Your task to perform on an android device: turn on data saver in the chrome app Image 0: 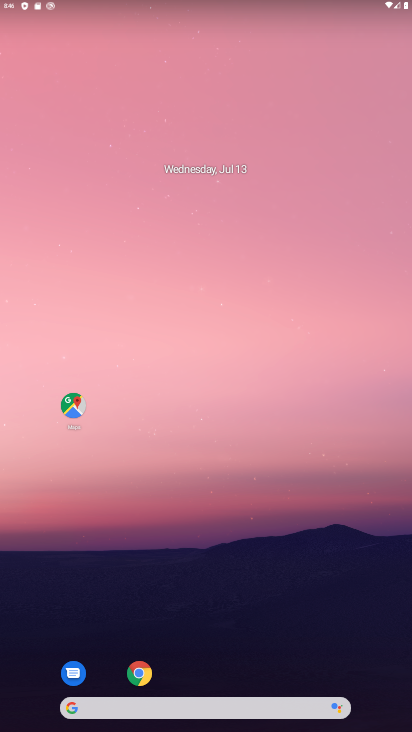
Step 0: drag from (188, 677) to (192, 333)
Your task to perform on an android device: turn on data saver in the chrome app Image 1: 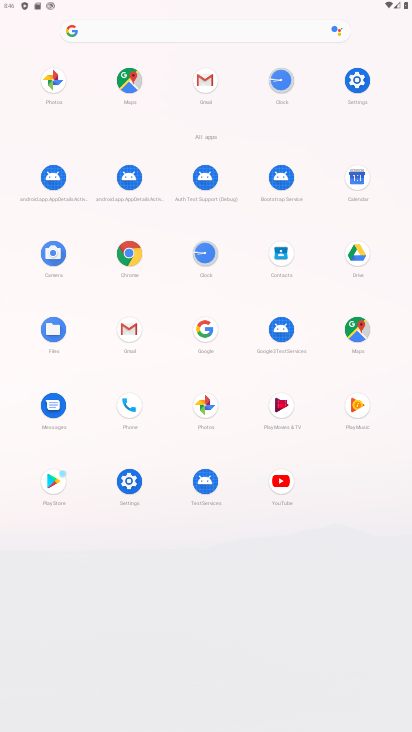
Step 1: click (125, 255)
Your task to perform on an android device: turn on data saver in the chrome app Image 2: 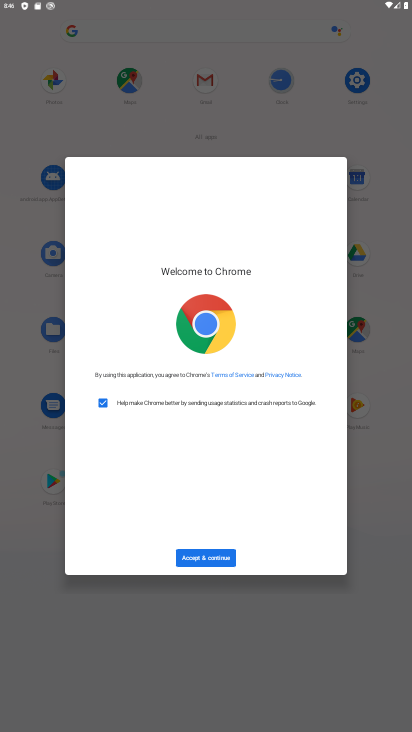
Step 2: click (221, 554)
Your task to perform on an android device: turn on data saver in the chrome app Image 3: 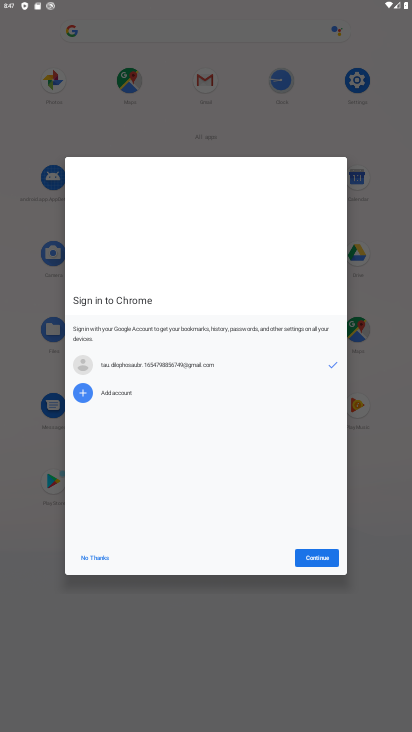
Step 3: click (315, 559)
Your task to perform on an android device: turn on data saver in the chrome app Image 4: 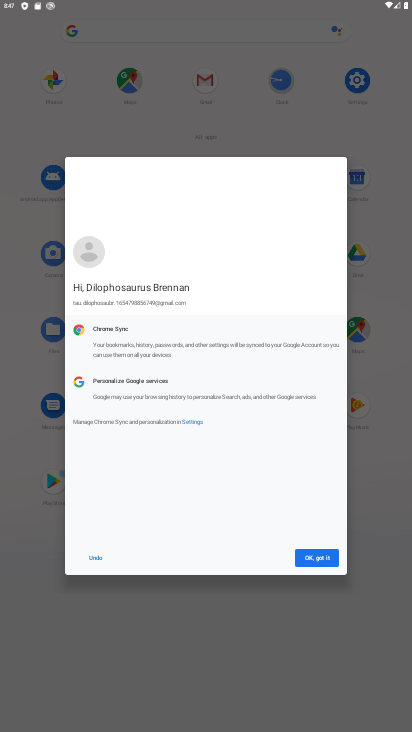
Step 4: click (315, 558)
Your task to perform on an android device: turn on data saver in the chrome app Image 5: 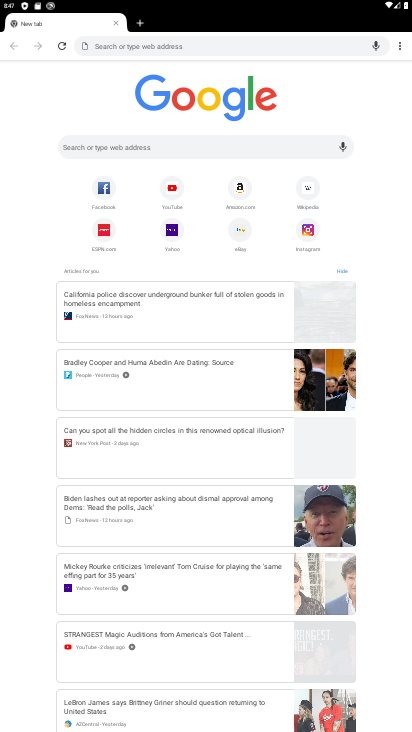
Step 5: click (397, 43)
Your task to perform on an android device: turn on data saver in the chrome app Image 6: 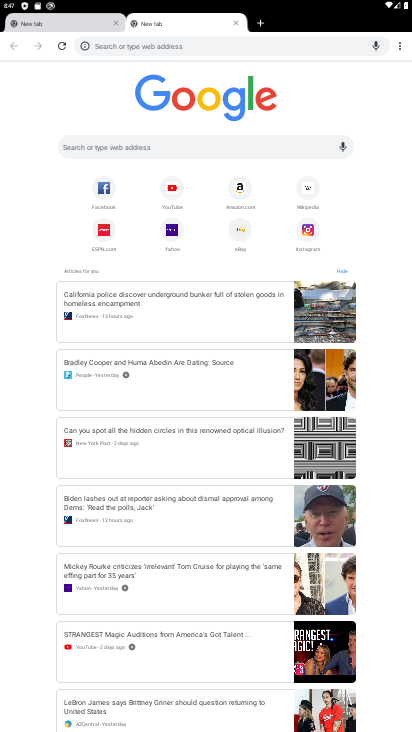
Step 6: click (397, 45)
Your task to perform on an android device: turn on data saver in the chrome app Image 7: 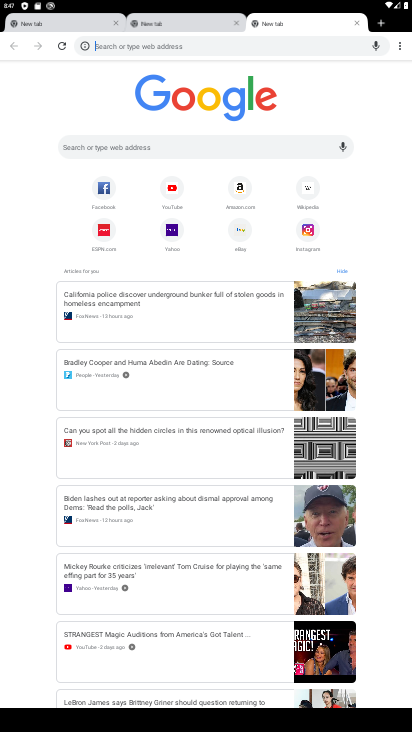
Step 7: click (355, 22)
Your task to perform on an android device: turn on data saver in the chrome app Image 8: 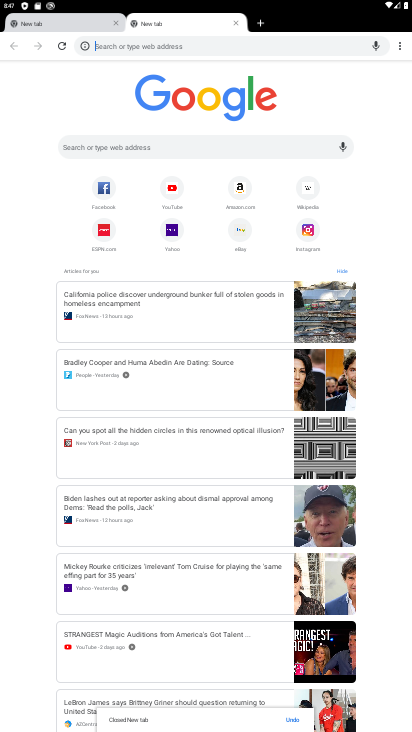
Step 8: click (229, 22)
Your task to perform on an android device: turn on data saver in the chrome app Image 9: 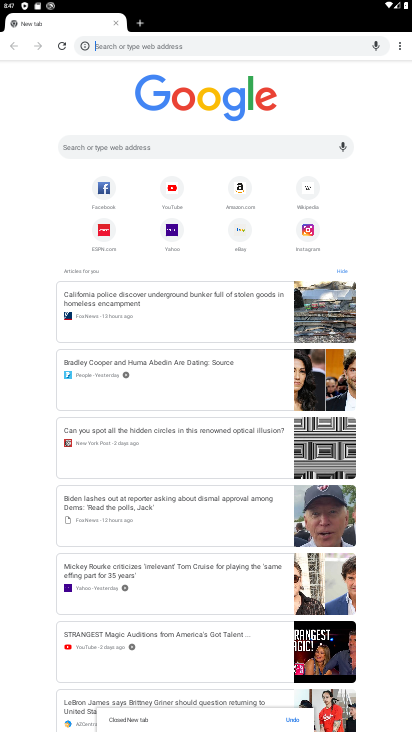
Step 9: click (392, 42)
Your task to perform on an android device: turn on data saver in the chrome app Image 10: 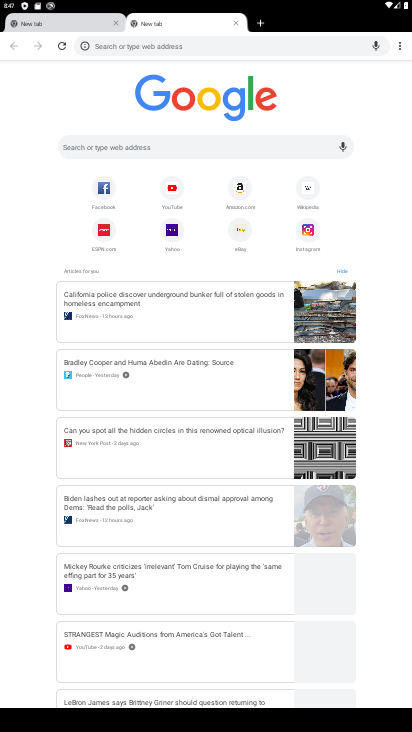
Step 10: click (399, 46)
Your task to perform on an android device: turn on data saver in the chrome app Image 11: 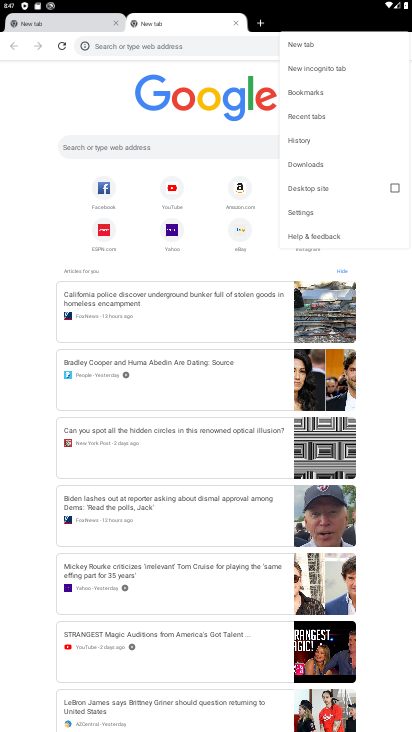
Step 11: click (312, 211)
Your task to perform on an android device: turn on data saver in the chrome app Image 12: 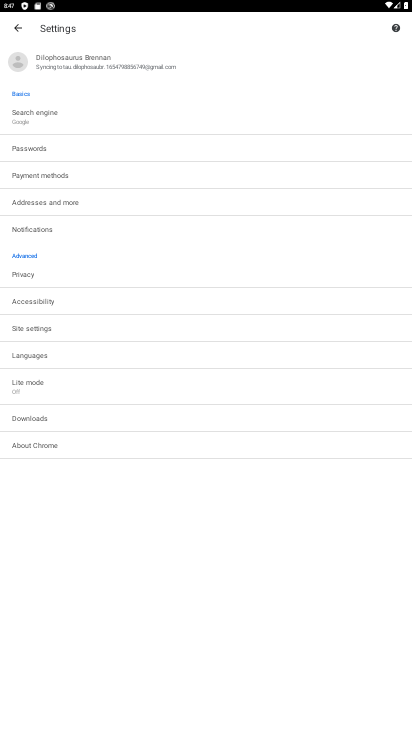
Step 12: click (44, 327)
Your task to perform on an android device: turn on data saver in the chrome app Image 13: 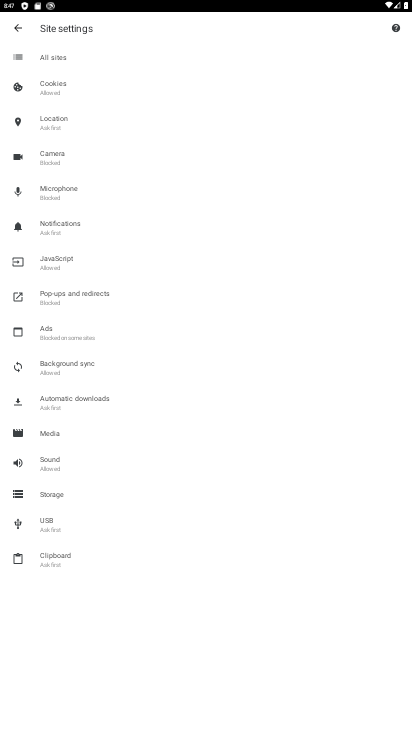
Step 13: click (19, 26)
Your task to perform on an android device: turn on data saver in the chrome app Image 14: 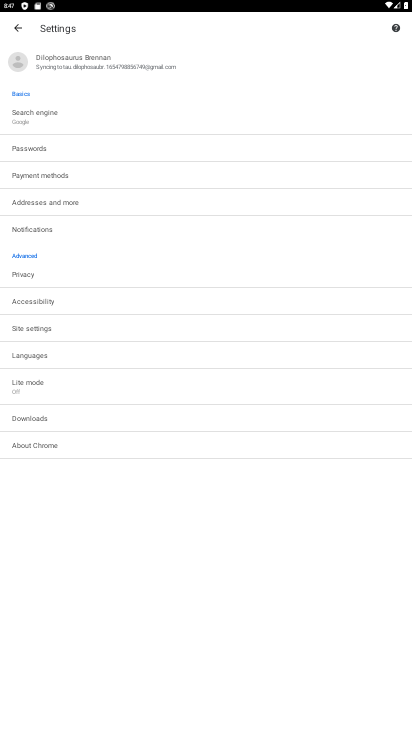
Step 14: click (27, 386)
Your task to perform on an android device: turn on data saver in the chrome app Image 15: 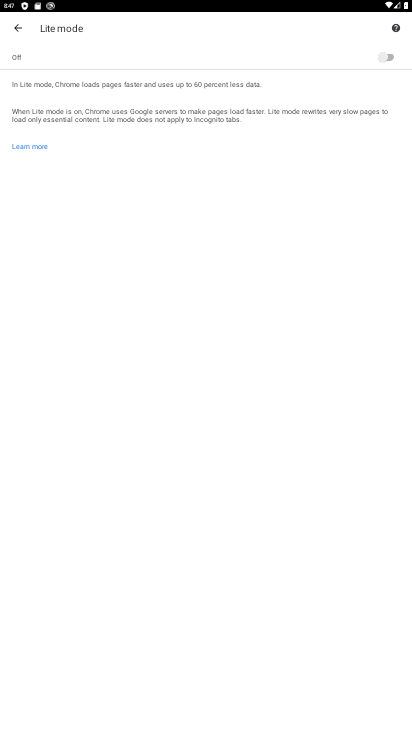
Step 15: click (390, 53)
Your task to perform on an android device: turn on data saver in the chrome app Image 16: 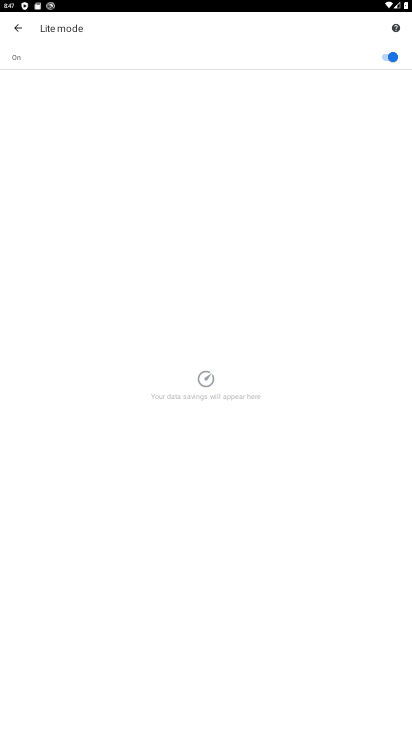
Step 16: task complete